Your task to perform on an android device: move an email to a new category in the gmail app Image 0: 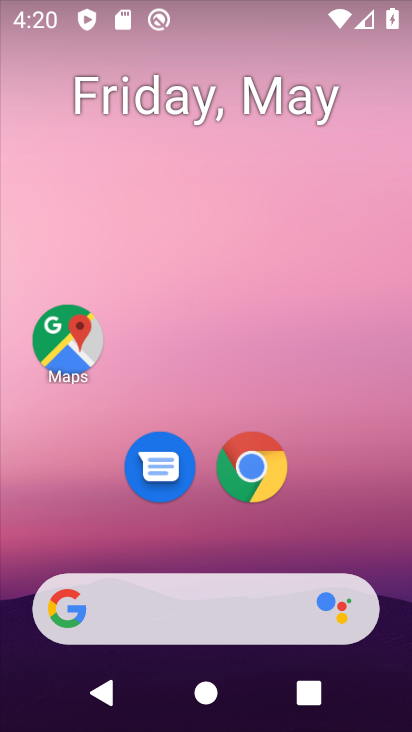
Step 0: drag from (330, 520) to (410, 153)
Your task to perform on an android device: move an email to a new category in the gmail app Image 1: 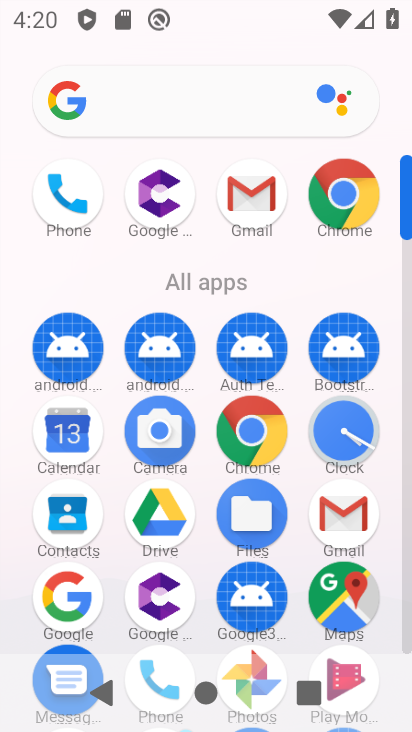
Step 1: click (247, 187)
Your task to perform on an android device: move an email to a new category in the gmail app Image 2: 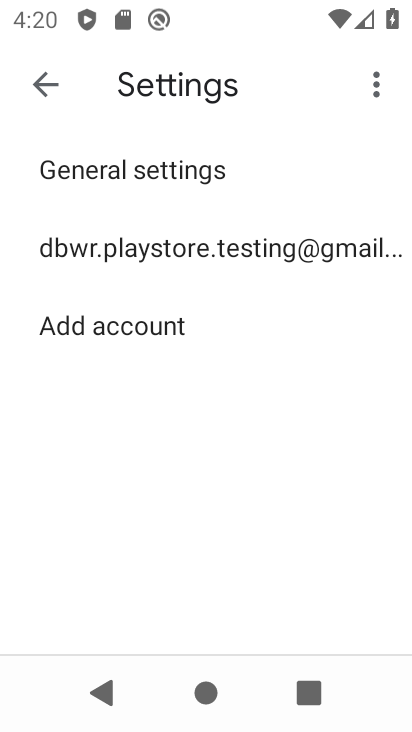
Step 2: click (115, 241)
Your task to perform on an android device: move an email to a new category in the gmail app Image 3: 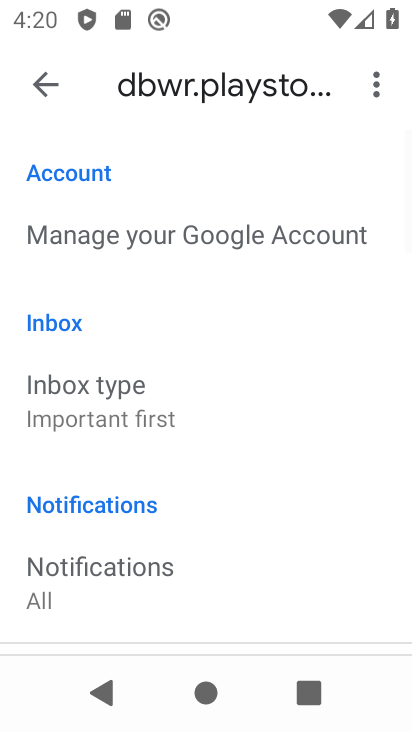
Step 3: click (53, 98)
Your task to perform on an android device: move an email to a new category in the gmail app Image 4: 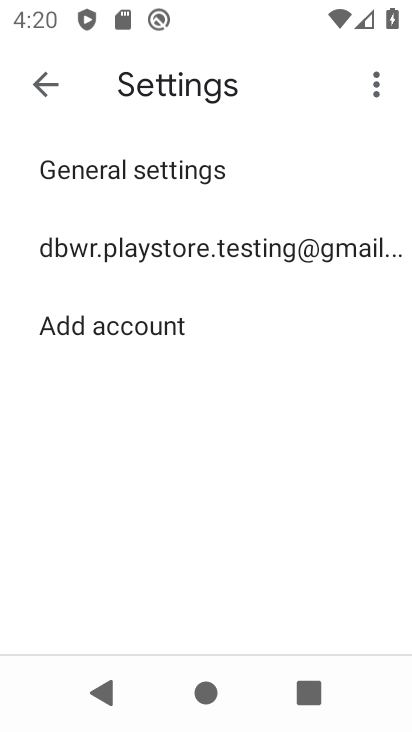
Step 4: click (55, 98)
Your task to perform on an android device: move an email to a new category in the gmail app Image 5: 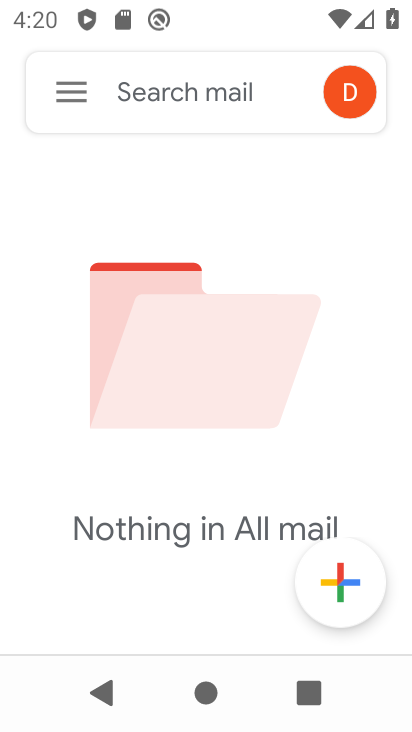
Step 5: click (64, 93)
Your task to perform on an android device: move an email to a new category in the gmail app Image 6: 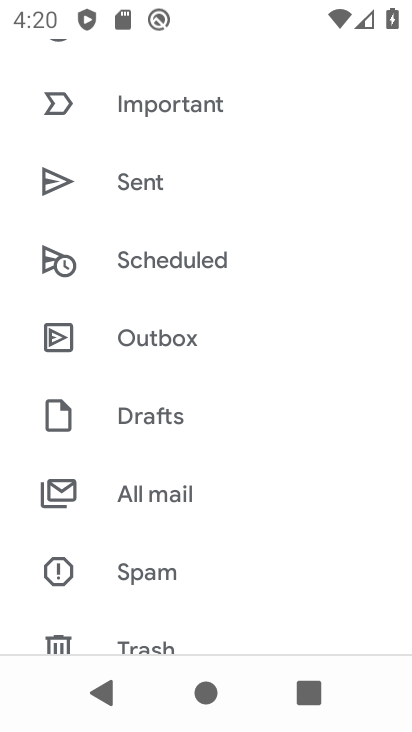
Step 6: drag from (208, 540) to (229, 345)
Your task to perform on an android device: move an email to a new category in the gmail app Image 7: 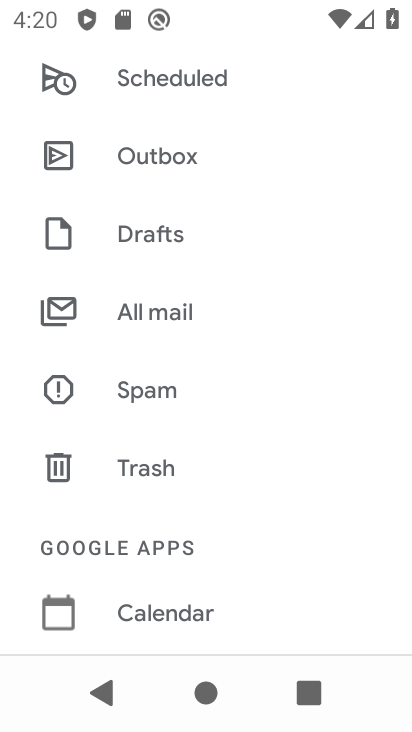
Step 7: click (165, 298)
Your task to perform on an android device: move an email to a new category in the gmail app Image 8: 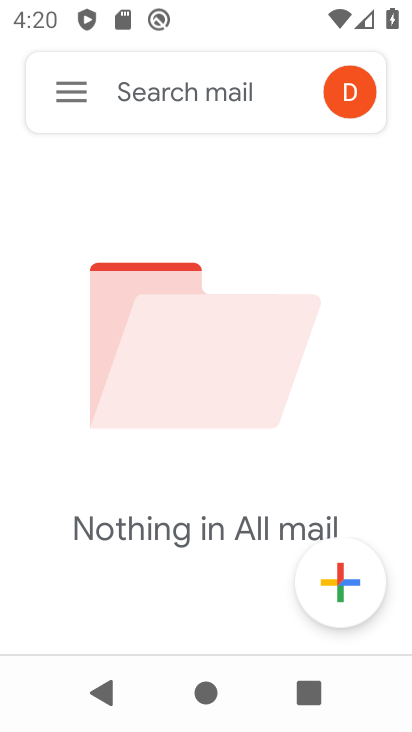
Step 8: task complete